Your task to perform on an android device: turn notification dots on Image 0: 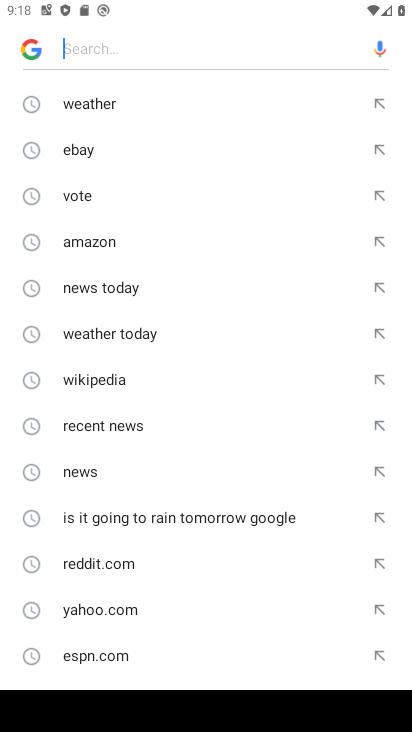
Step 0: press home button
Your task to perform on an android device: turn notification dots on Image 1: 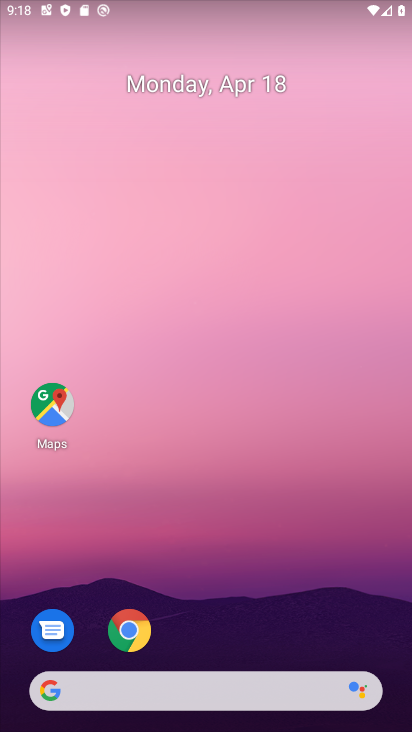
Step 1: drag from (301, 593) to (320, 157)
Your task to perform on an android device: turn notification dots on Image 2: 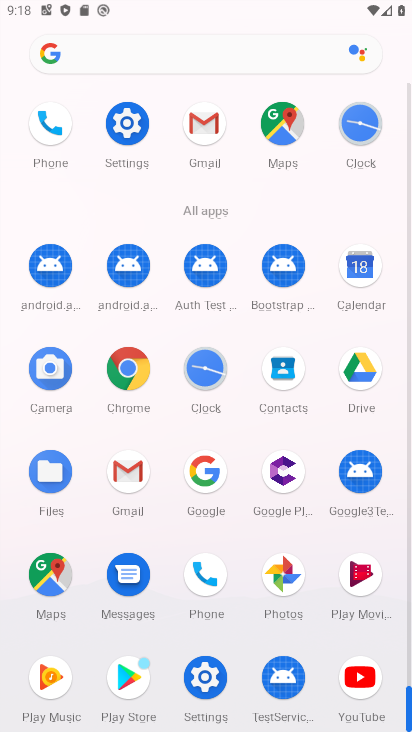
Step 2: click (127, 115)
Your task to perform on an android device: turn notification dots on Image 3: 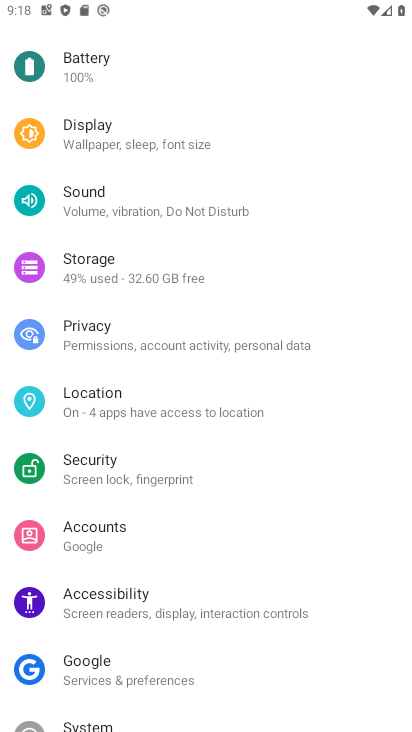
Step 3: drag from (250, 146) to (203, 638)
Your task to perform on an android device: turn notification dots on Image 4: 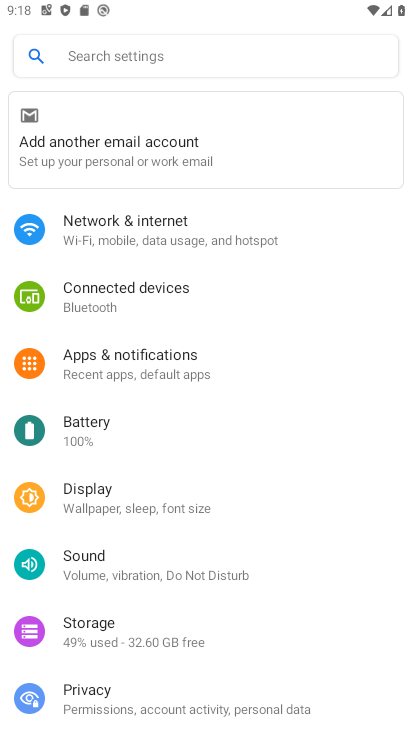
Step 4: click (198, 353)
Your task to perform on an android device: turn notification dots on Image 5: 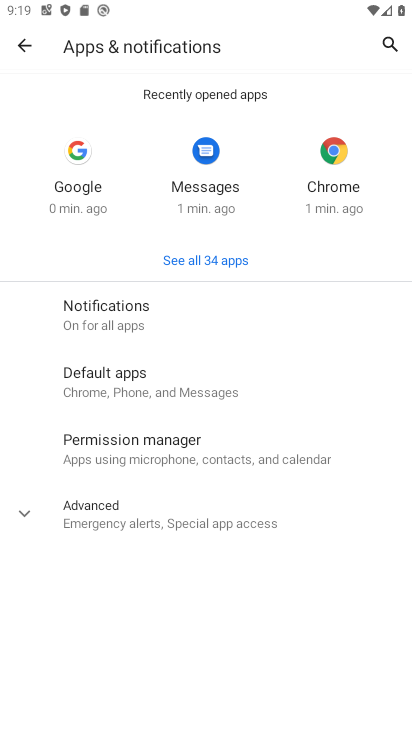
Step 5: click (127, 315)
Your task to perform on an android device: turn notification dots on Image 6: 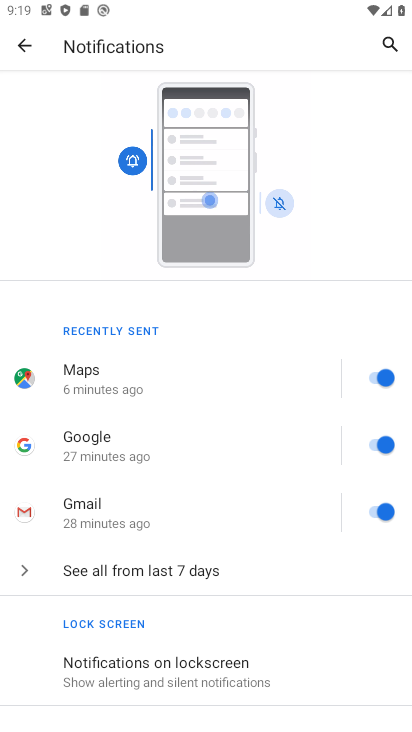
Step 6: drag from (192, 565) to (225, 349)
Your task to perform on an android device: turn notification dots on Image 7: 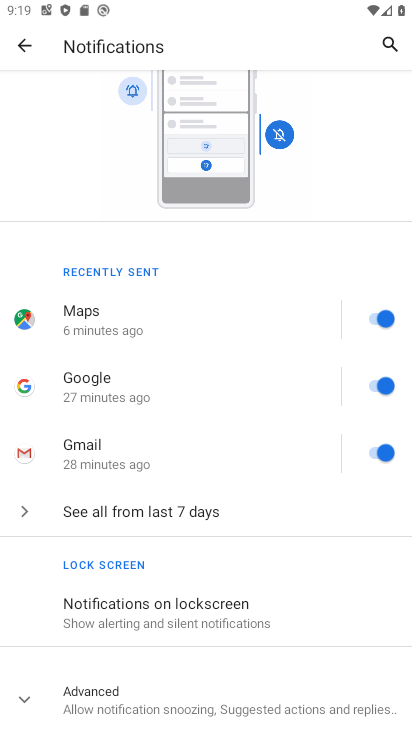
Step 7: click (22, 694)
Your task to perform on an android device: turn notification dots on Image 8: 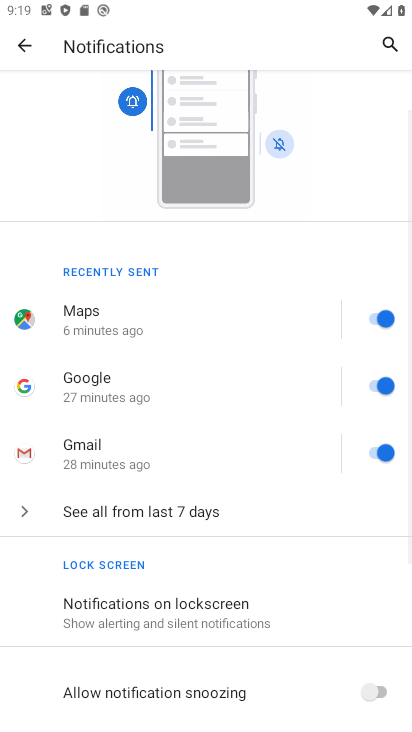
Step 8: task complete